Your task to perform on an android device: check out phone information Image 0: 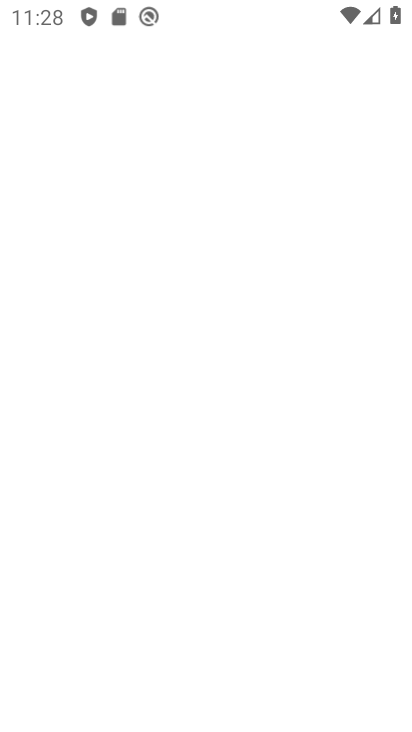
Step 0: press home button
Your task to perform on an android device: check out phone information Image 1: 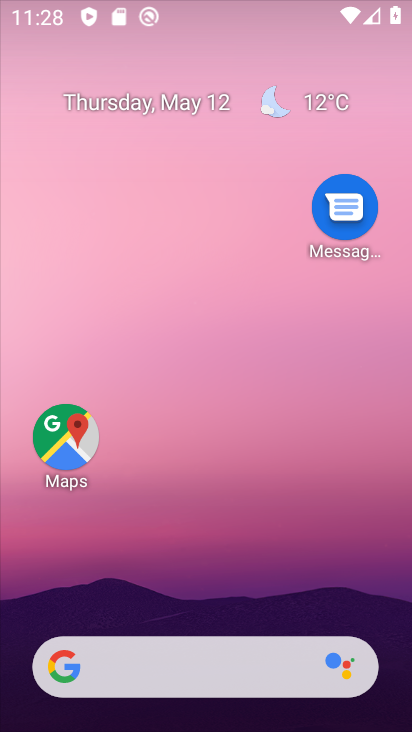
Step 1: drag from (284, 587) to (288, 9)
Your task to perform on an android device: check out phone information Image 2: 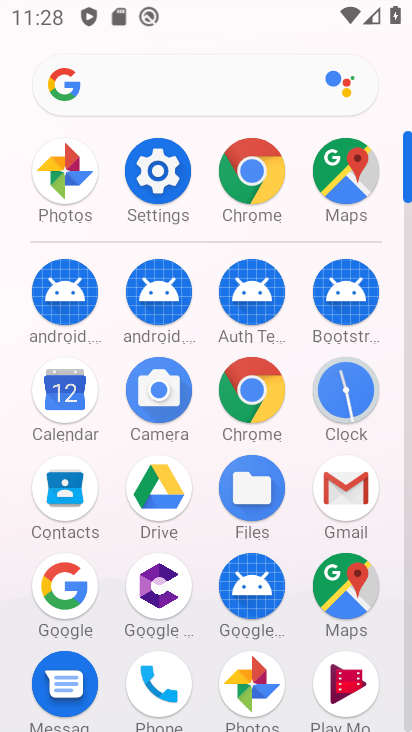
Step 2: drag from (196, 647) to (328, 304)
Your task to perform on an android device: check out phone information Image 3: 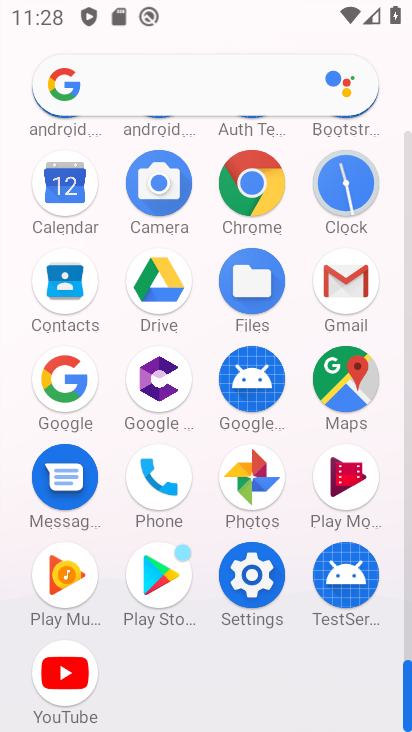
Step 3: click (144, 504)
Your task to perform on an android device: check out phone information Image 4: 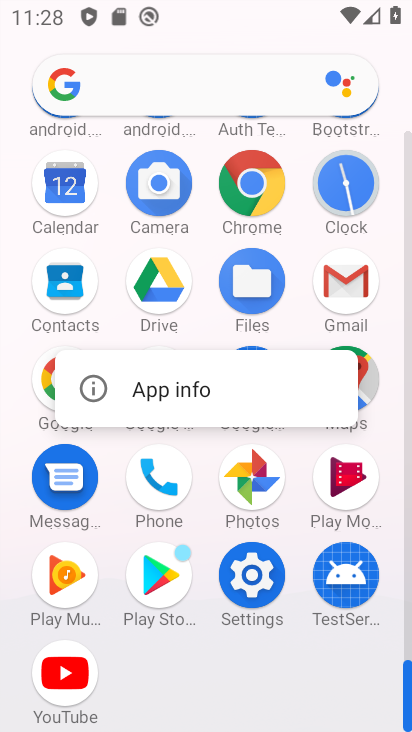
Step 4: click (219, 383)
Your task to perform on an android device: check out phone information Image 5: 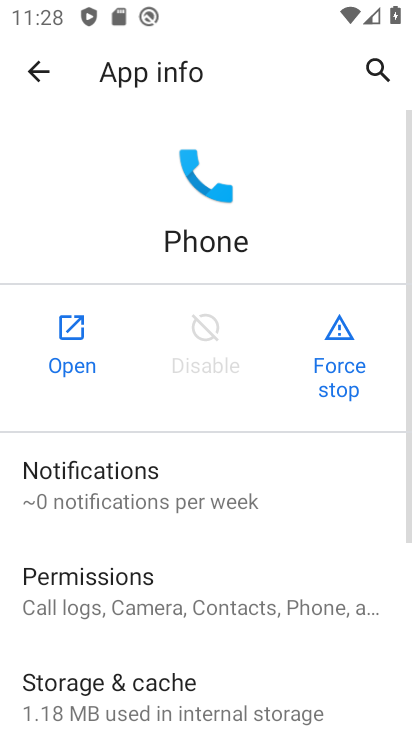
Step 5: task complete